Your task to perform on an android device: clear all cookies in the chrome app Image 0: 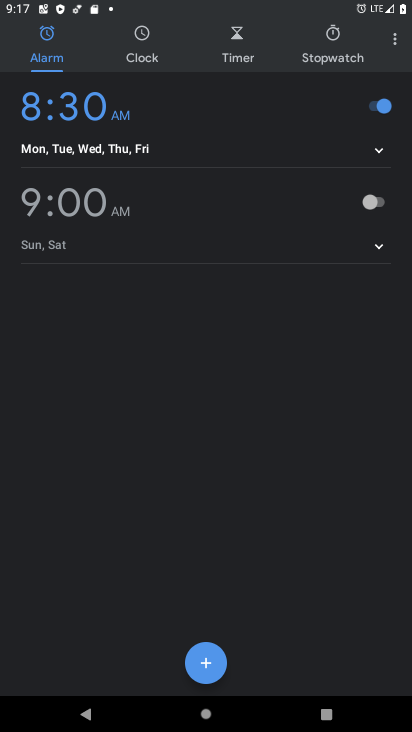
Step 0: press home button
Your task to perform on an android device: clear all cookies in the chrome app Image 1: 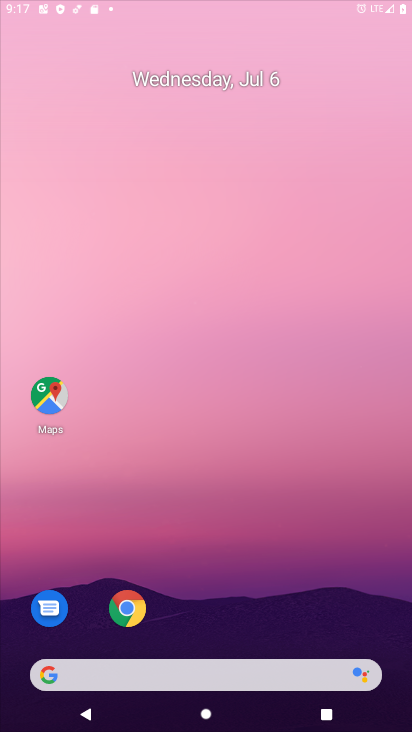
Step 1: drag from (384, 654) to (276, 2)
Your task to perform on an android device: clear all cookies in the chrome app Image 2: 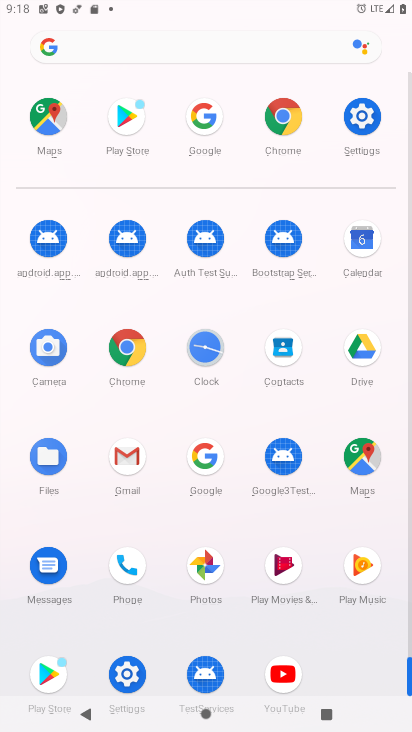
Step 2: click (285, 128)
Your task to perform on an android device: clear all cookies in the chrome app Image 3: 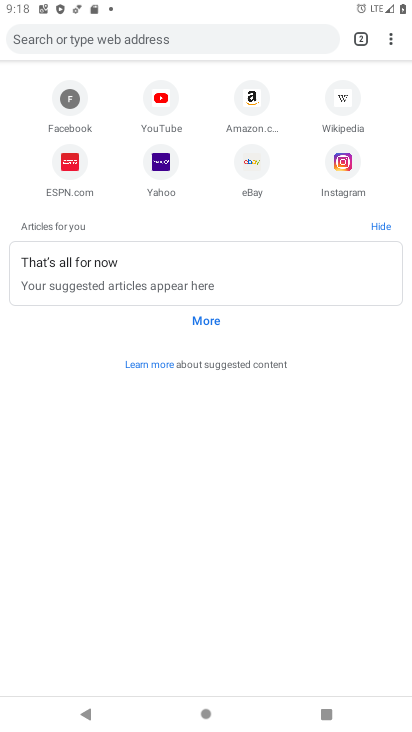
Step 3: click (386, 43)
Your task to perform on an android device: clear all cookies in the chrome app Image 4: 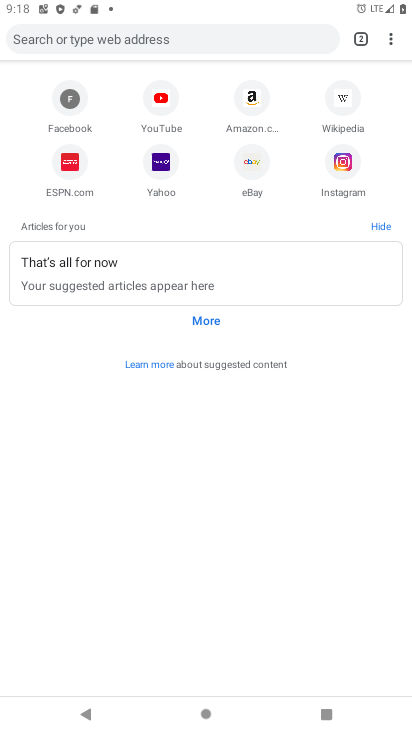
Step 4: click (391, 36)
Your task to perform on an android device: clear all cookies in the chrome app Image 5: 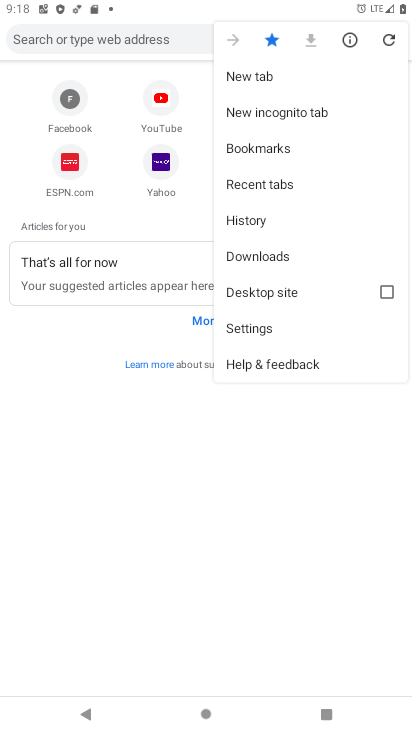
Step 5: click (270, 223)
Your task to perform on an android device: clear all cookies in the chrome app Image 6: 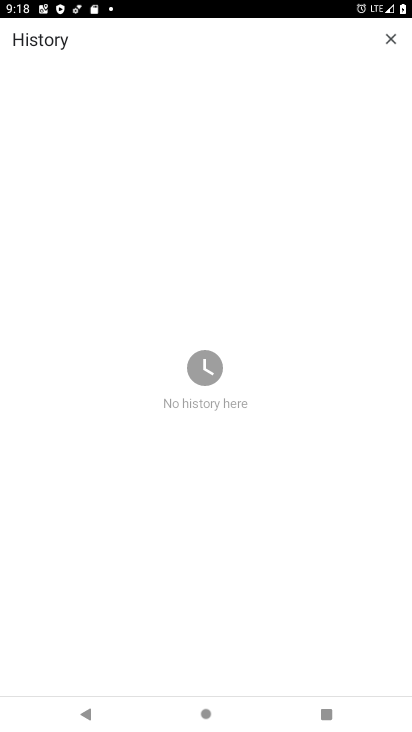
Step 6: task complete